Your task to perform on an android device: Go to settings Image 0: 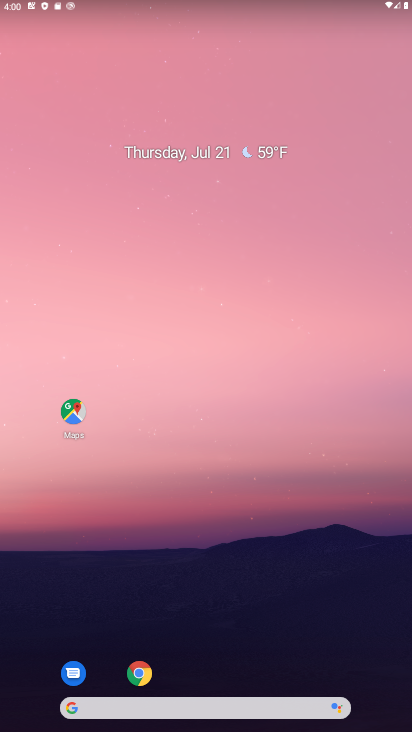
Step 0: drag from (381, 675) to (352, 208)
Your task to perform on an android device: Go to settings Image 1: 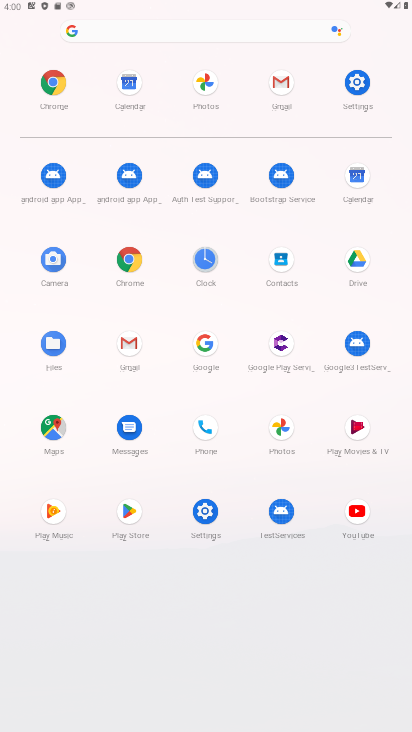
Step 1: click (206, 510)
Your task to perform on an android device: Go to settings Image 2: 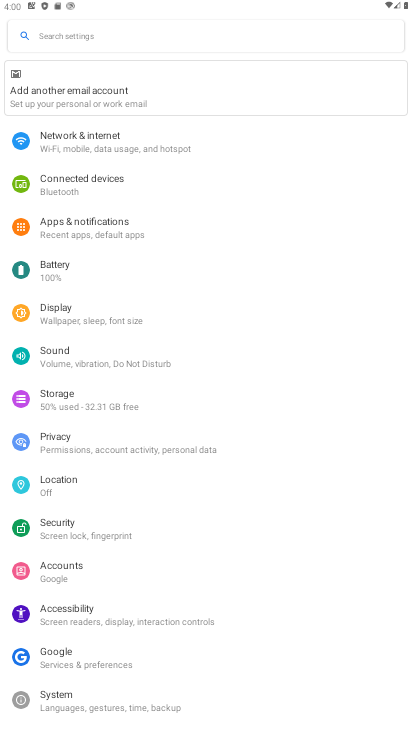
Step 2: task complete